Your task to perform on an android device: Open Android settings Image 0: 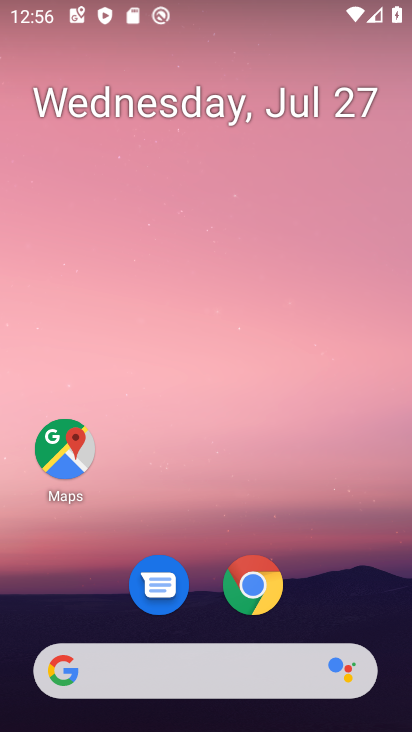
Step 0: press home button
Your task to perform on an android device: Open Android settings Image 1: 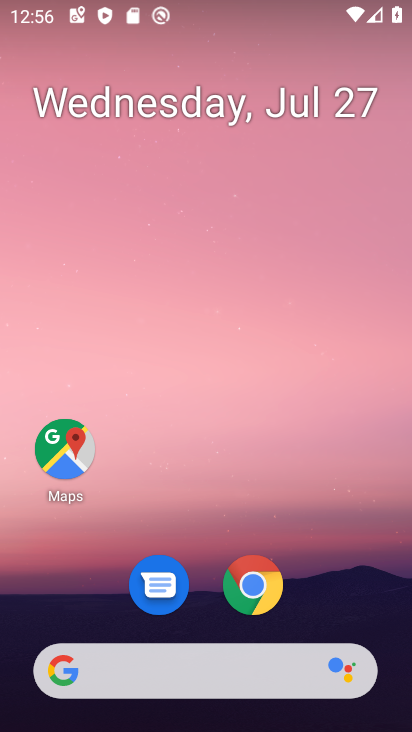
Step 1: drag from (192, 606) to (277, 0)
Your task to perform on an android device: Open Android settings Image 2: 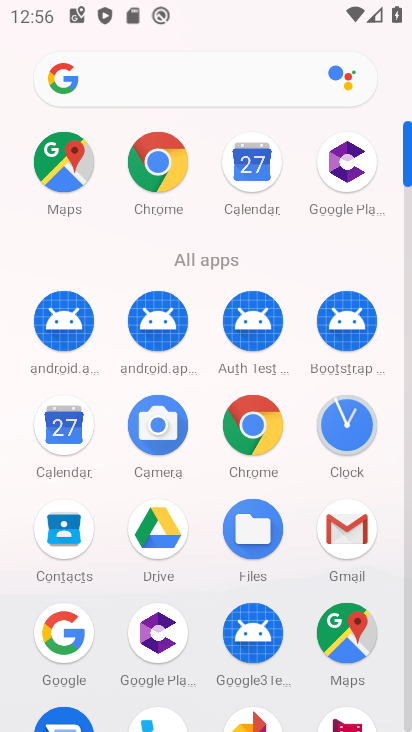
Step 2: drag from (215, 569) to (295, 115)
Your task to perform on an android device: Open Android settings Image 3: 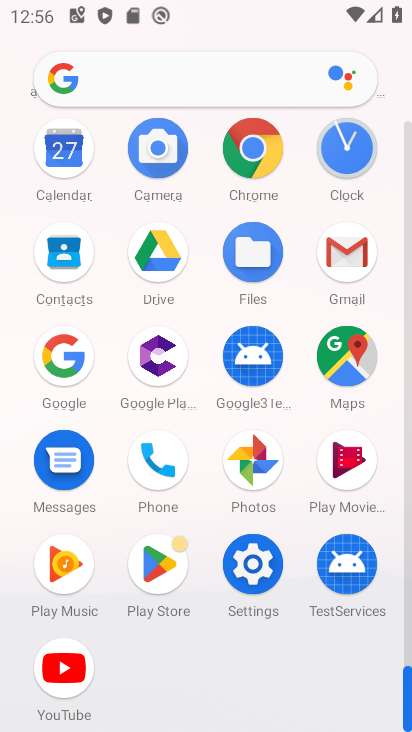
Step 3: click (256, 567)
Your task to perform on an android device: Open Android settings Image 4: 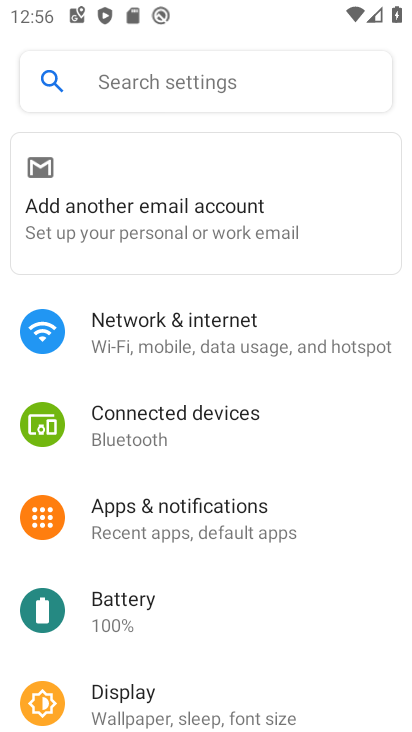
Step 4: task complete